Your task to perform on an android device: Is it going to rain tomorrow? Image 0: 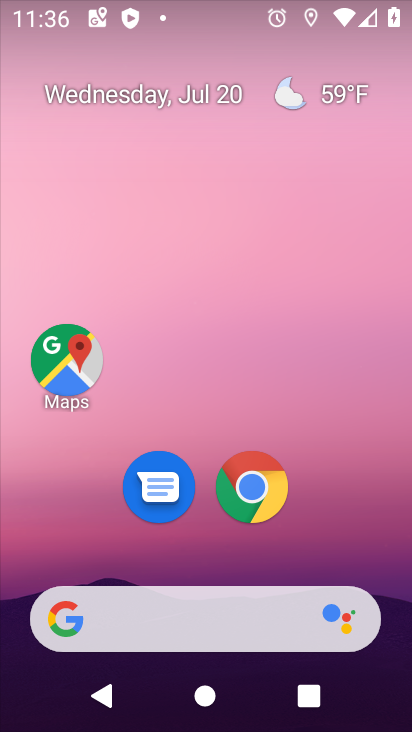
Step 0: click (235, 617)
Your task to perform on an android device: Is it going to rain tomorrow? Image 1: 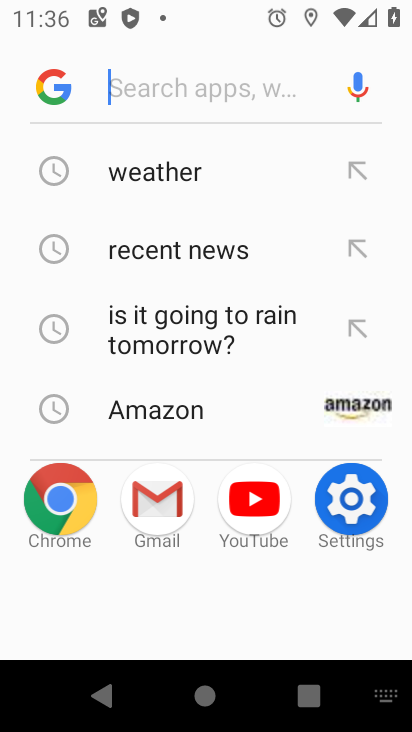
Step 1: click (172, 174)
Your task to perform on an android device: Is it going to rain tomorrow? Image 2: 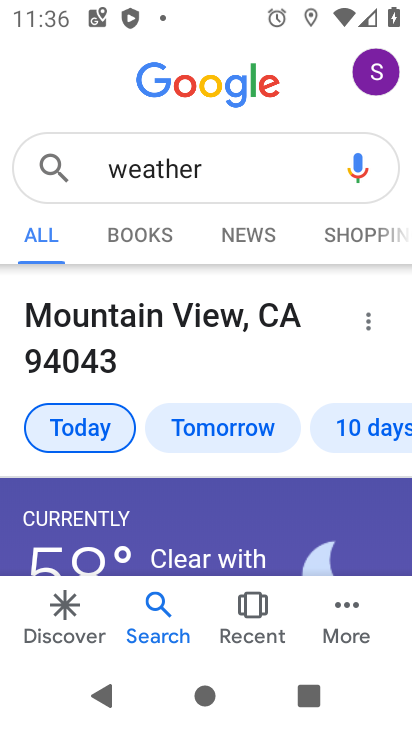
Step 2: click (237, 423)
Your task to perform on an android device: Is it going to rain tomorrow? Image 3: 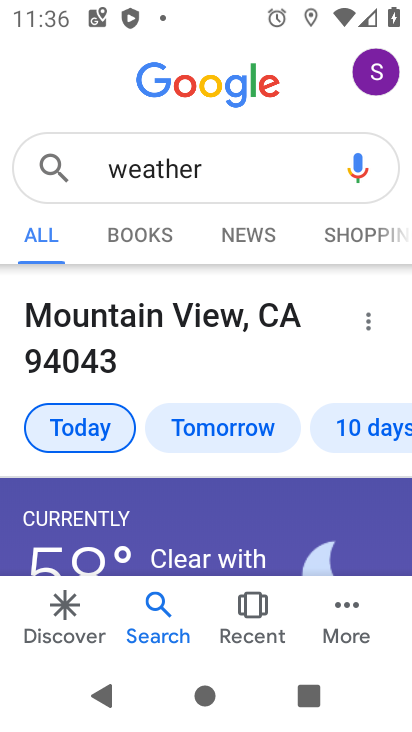
Step 3: click (237, 423)
Your task to perform on an android device: Is it going to rain tomorrow? Image 4: 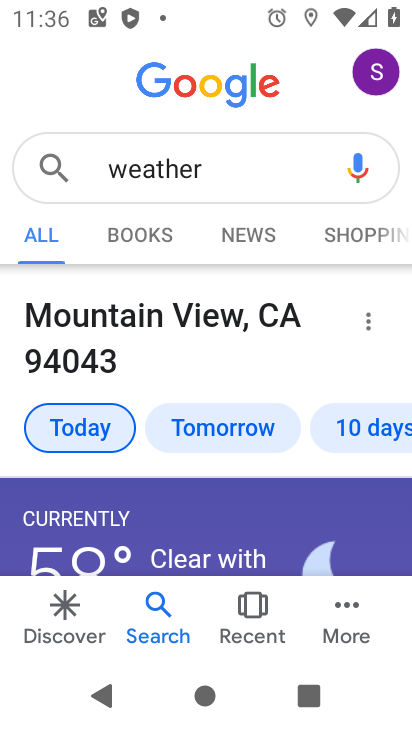
Step 4: click (237, 423)
Your task to perform on an android device: Is it going to rain tomorrow? Image 5: 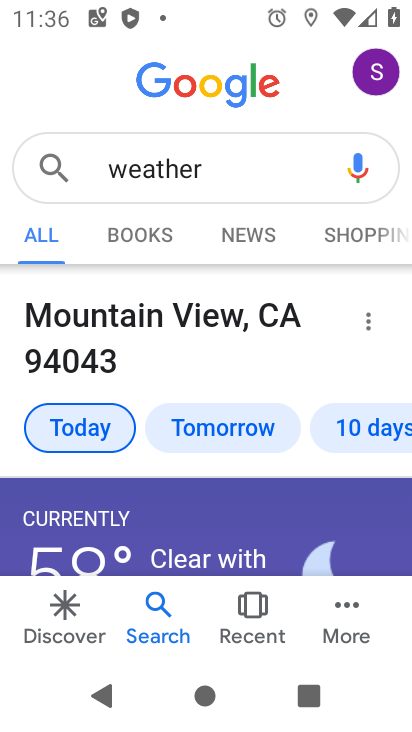
Step 5: click (237, 423)
Your task to perform on an android device: Is it going to rain tomorrow? Image 6: 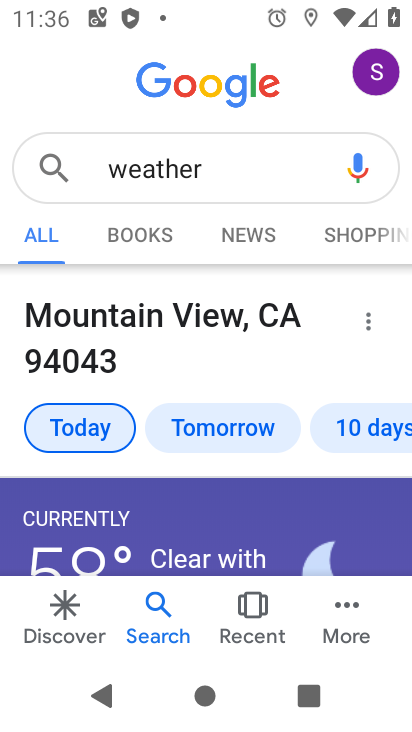
Step 6: task complete